Your task to perform on an android device: delete a single message in the gmail app Image 0: 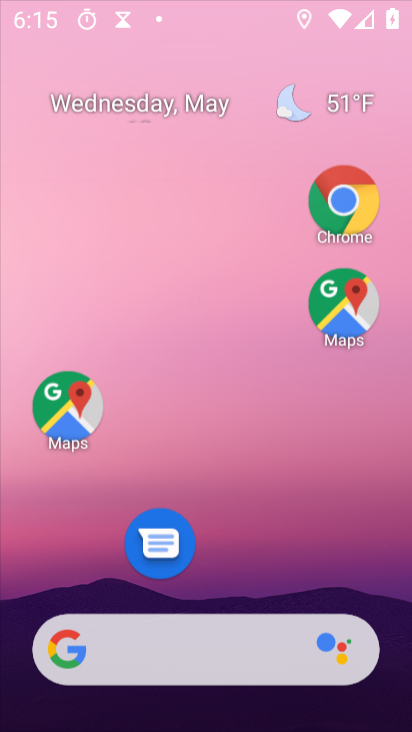
Step 0: drag from (309, 442) to (329, 49)
Your task to perform on an android device: delete a single message in the gmail app Image 1: 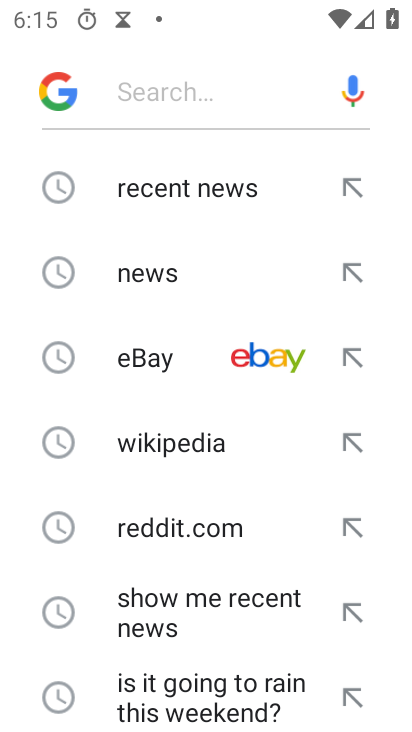
Step 1: press home button
Your task to perform on an android device: delete a single message in the gmail app Image 2: 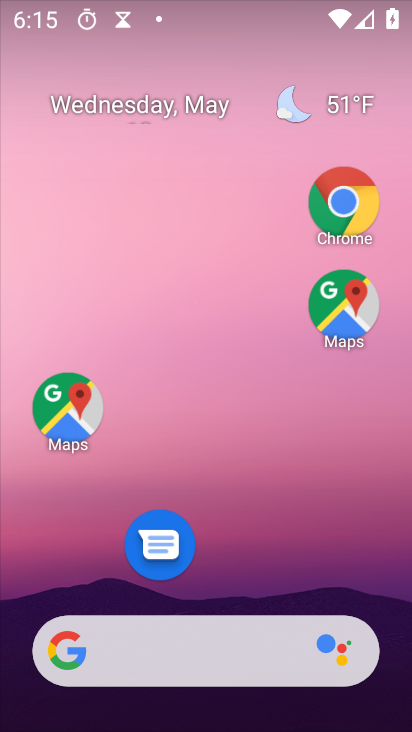
Step 2: drag from (240, 264) to (237, 6)
Your task to perform on an android device: delete a single message in the gmail app Image 3: 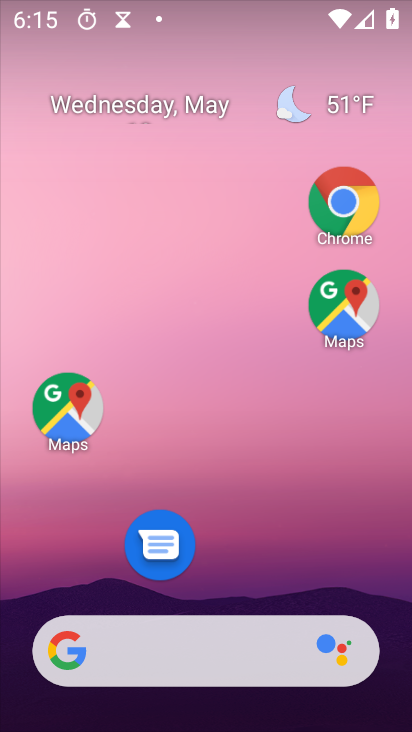
Step 3: drag from (245, 486) to (226, 110)
Your task to perform on an android device: delete a single message in the gmail app Image 4: 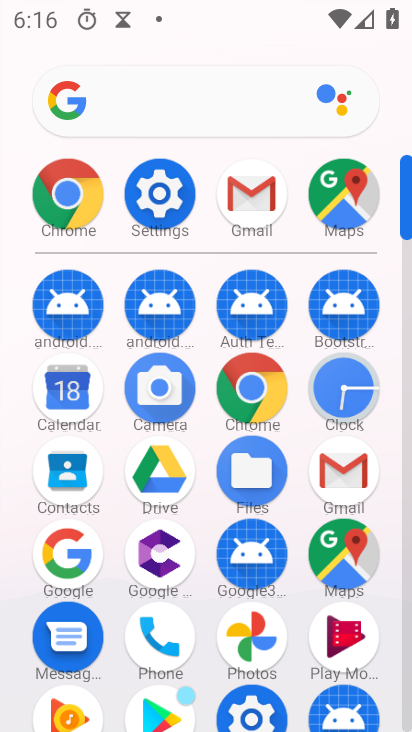
Step 4: click (347, 404)
Your task to perform on an android device: delete a single message in the gmail app Image 5: 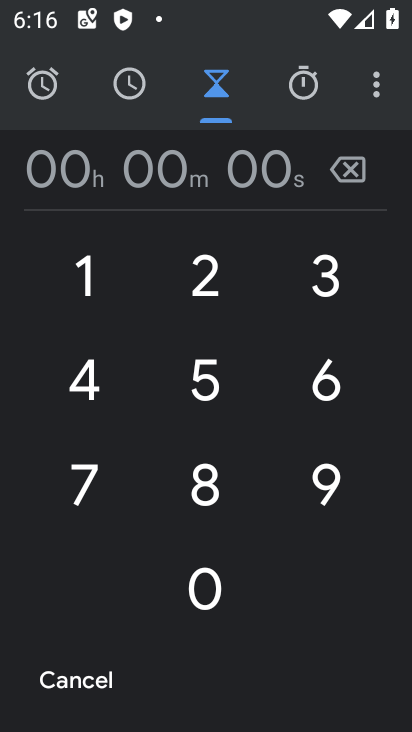
Step 5: press home button
Your task to perform on an android device: delete a single message in the gmail app Image 6: 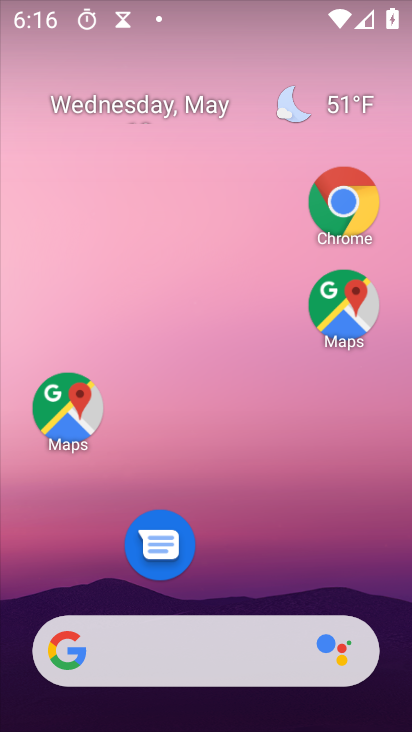
Step 6: drag from (233, 324) to (227, 13)
Your task to perform on an android device: delete a single message in the gmail app Image 7: 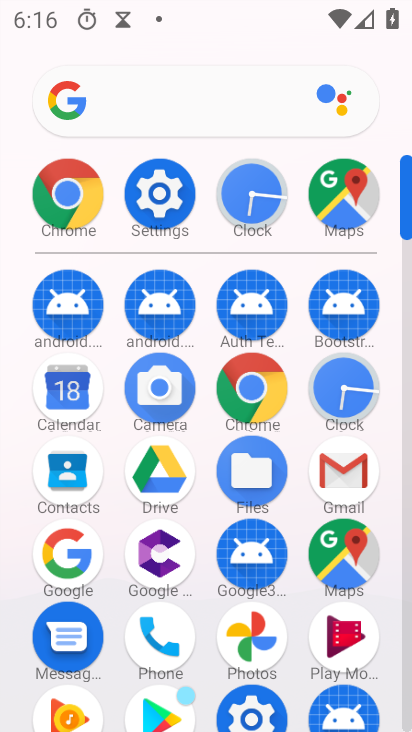
Step 7: click (333, 476)
Your task to perform on an android device: delete a single message in the gmail app Image 8: 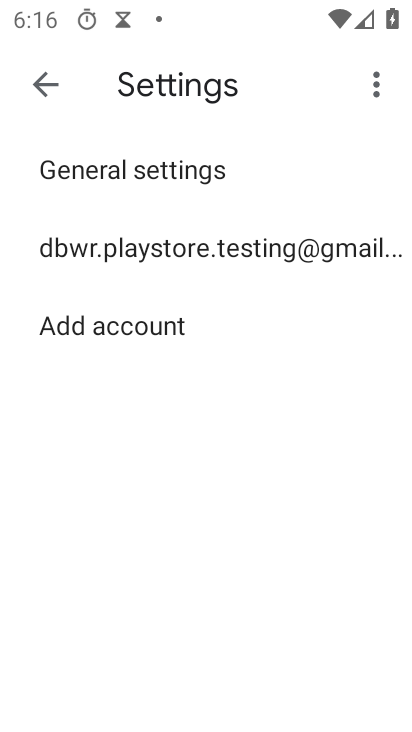
Step 8: click (239, 254)
Your task to perform on an android device: delete a single message in the gmail app Image 9: 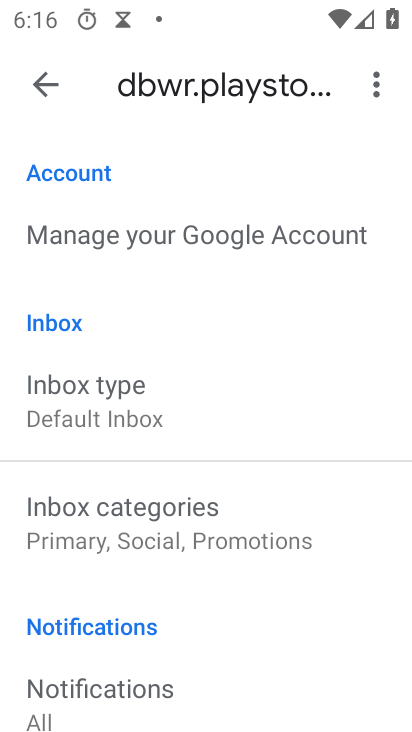
Step 9: click (38, 89)
Your task to perform on an android device: delete a single message in the gmail app Image 10: 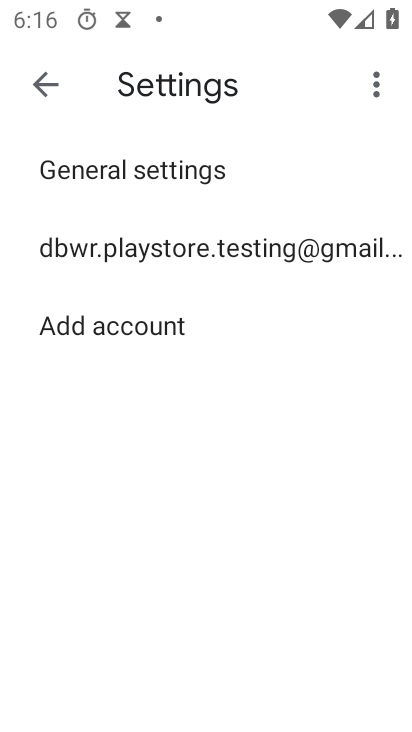
Step 10: click (41, 90)
Your task to perform on an android device: delete a single message in the gmail app Image 11: 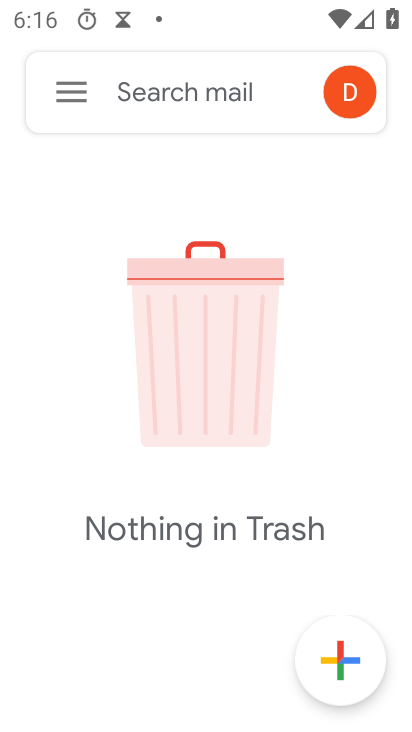
Step 11: click (76, 96)
Your task to perform on an android device: delete a single message in the gmail app Image 12: 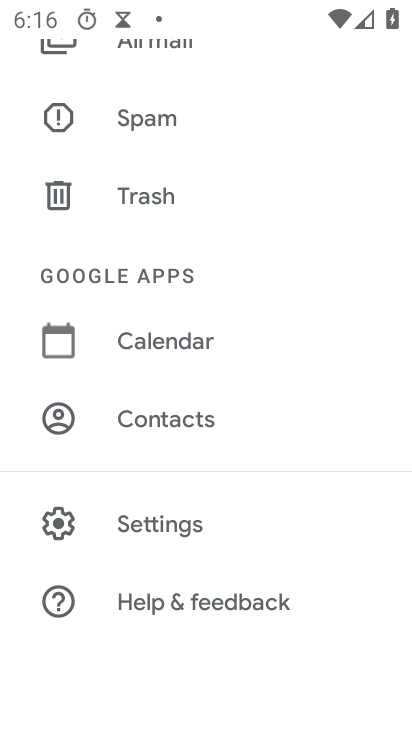
Step 12: click (174, 42)
Your task to perform on an android device: delete a single message in the gmail app Image 13: 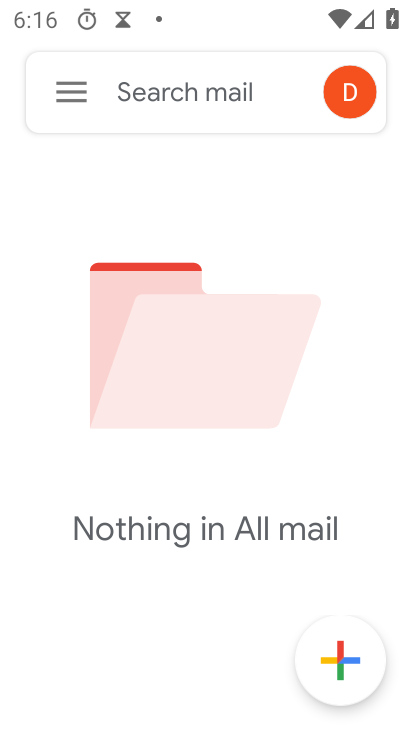
Step 13: task complete